Your task to perform on an android device: check storage Image 0: 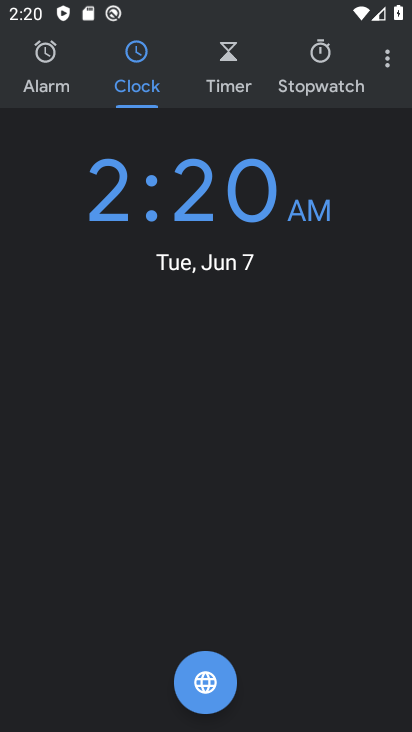
Step 0: press home button
Your task to perform on an android device: check storage Image 1: 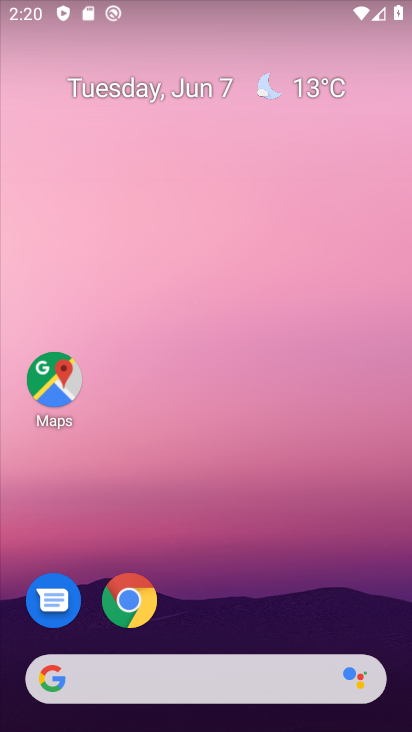
Step 1: drag from (214, 542) to (237, 70)
Your task to perform on an android device: check storage Image 2: 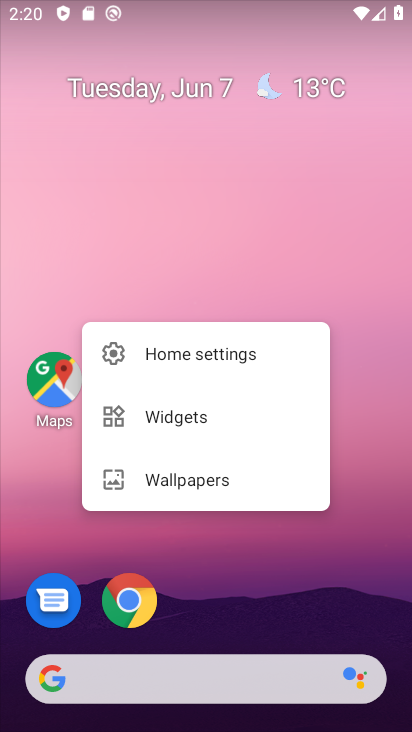
Step 2: click (242, 577)
Your task to perform on an android device: check storage Image 3: 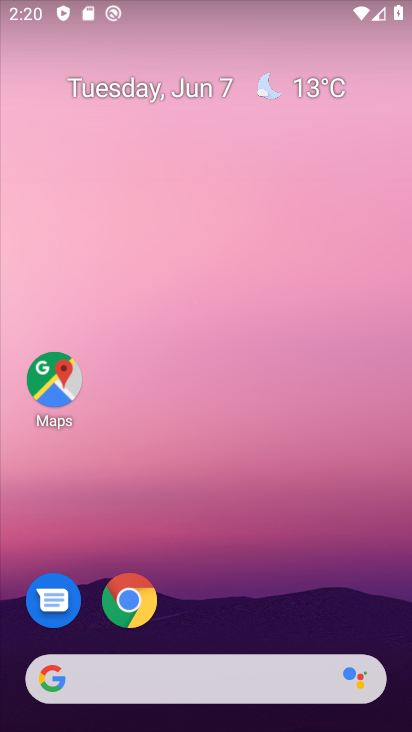
Step 3: drag from (207, 624) to (176, 104)
Your task to perform on an android device: check storage Image 4: 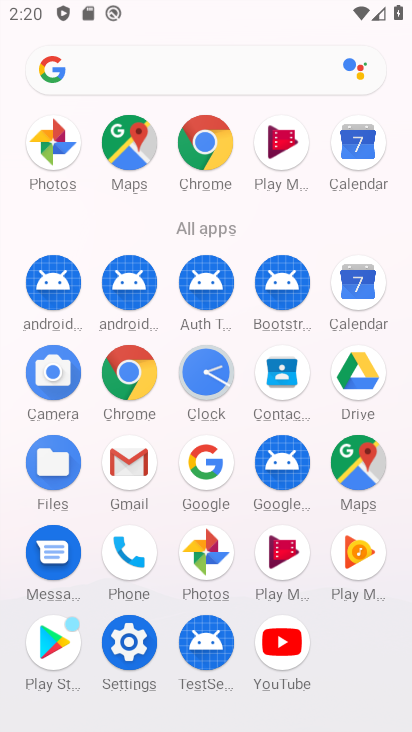
Step 4: click (125, 646)
Your task to perform on an android device: check storage Image 5: 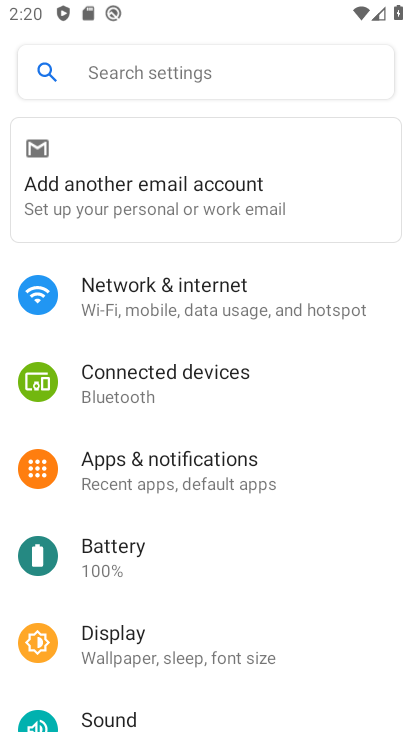
Step 5: drag from (165, 655) to (205, 225)
Your task to perform on an android device: check storage Image 6: 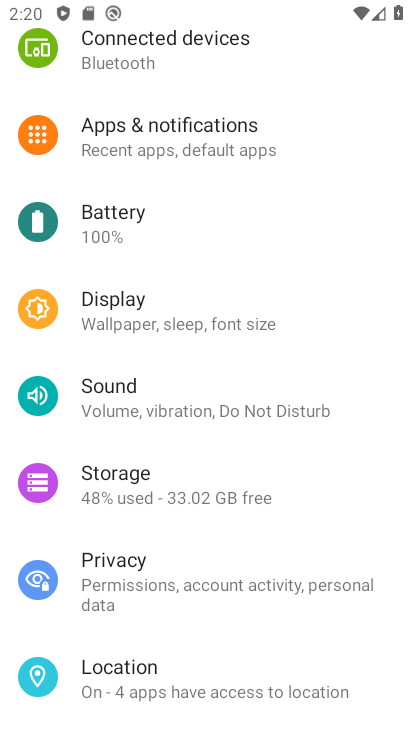
Step 6: click (155, 491)
Your task to perform on an android device: check storage Image 7: 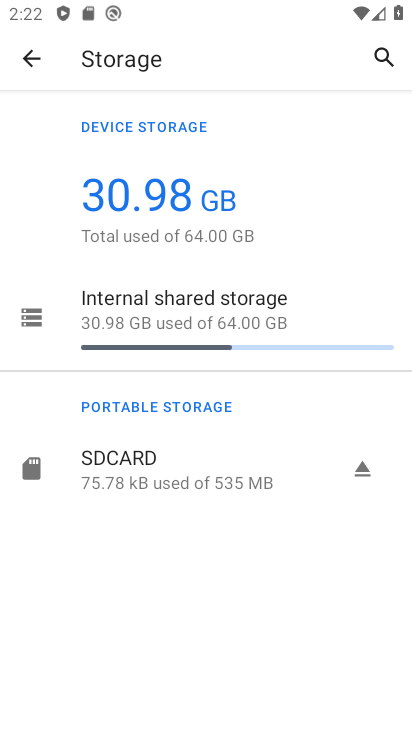
Step 7: task complete